Your task to perform on an android device: turn off location history Image 0: 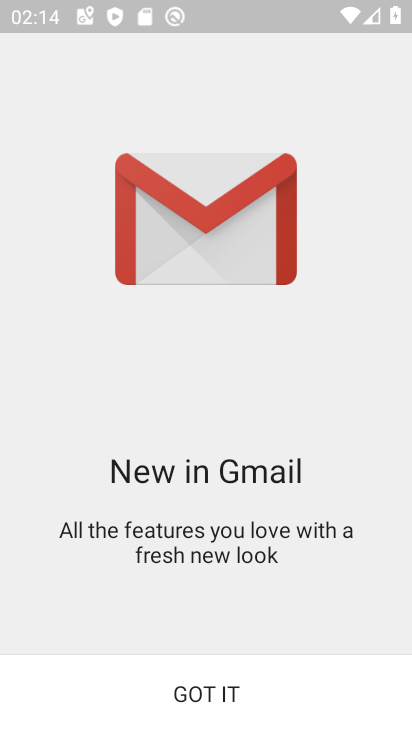
Step 0: press home button
Your task to perform on an android device: turn off location history Image 1: 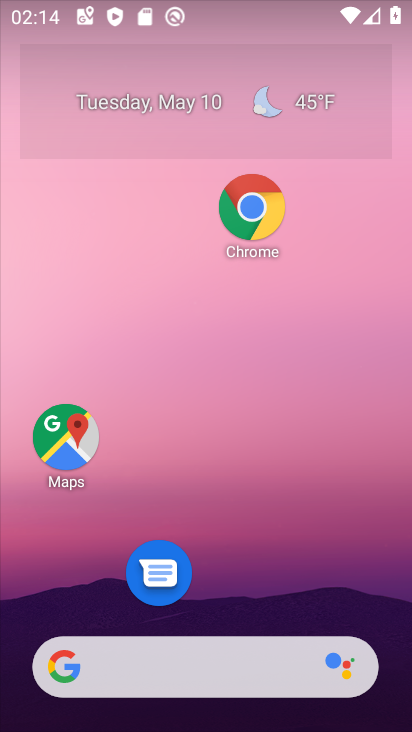
Step 1: drag from (287, 625) to (308, 164)
Your task to perform on an android device: turn off location history Image 2: 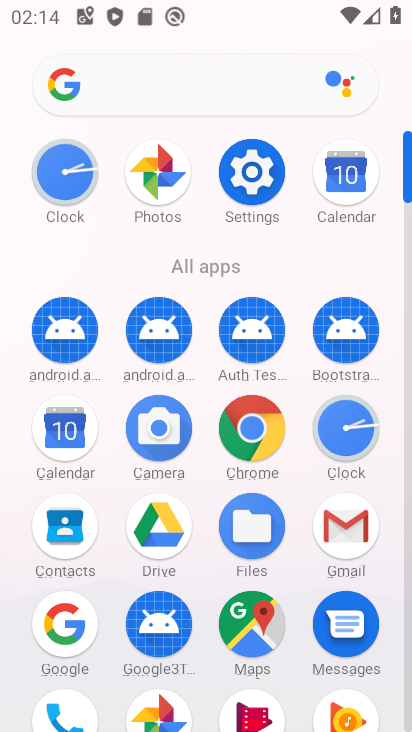
Step 2: click (259, 202)
Your task to perform on an android device: turn off location history Image 3: 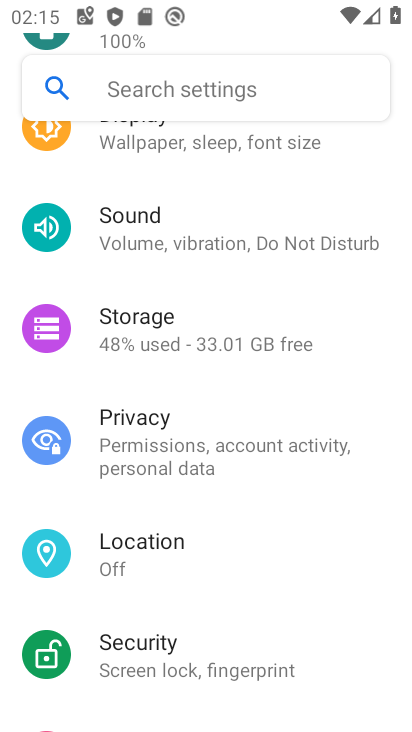
Step 3: click (169, 547)
Your task to perform on an android device: turn off location history Image 4: 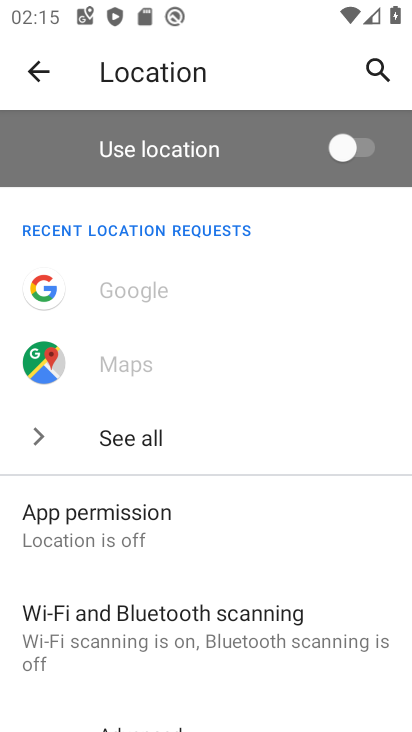
Step 4: drag from (165, 583) to (205, 306)
Your task to perform on an android device: turn off location history Image 5: 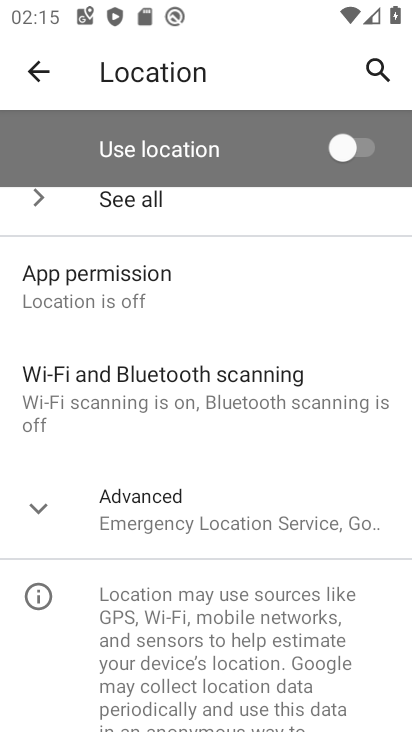
Step 5: click (190, 527)
Your task to perform on an android device: turn off location history Image 6: 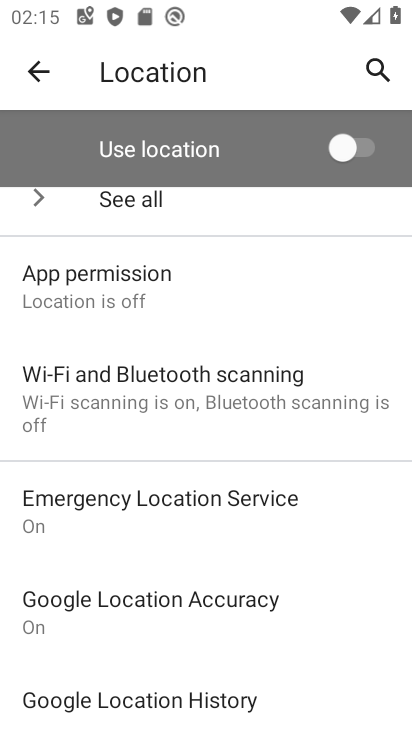
Step 6: drag from (190, 636) to (264, 408)
Your task to perform on an android device: turn off location history Image 7: 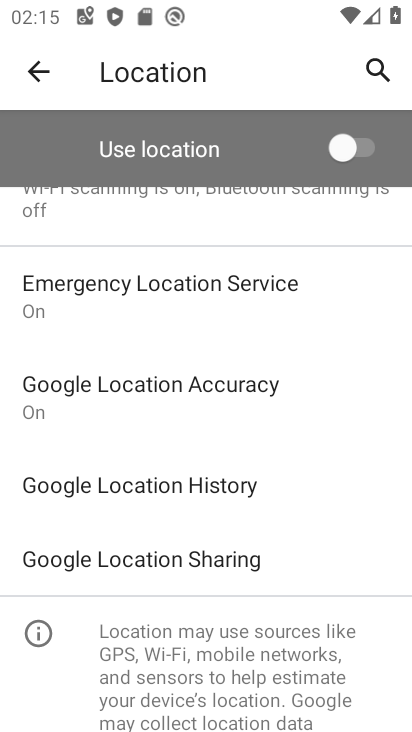
Step 7: click (220, 505)
Your task to perform on an android device: turn off location history Image 8: 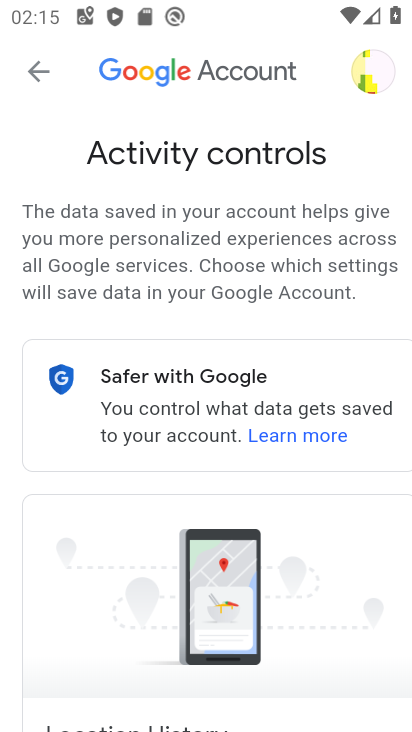
Step 8: drag from (164, 524) to (235, 129)
Your task to perform on an android device: turn off location history Image 9: 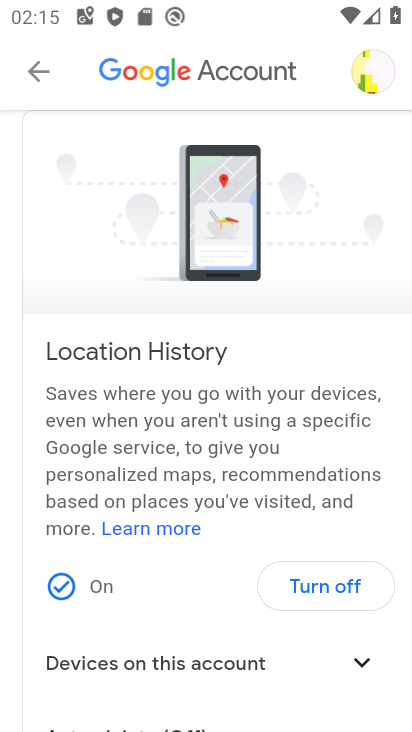
Step 9: click (320, 585)
Your task to perform on an android device: turn off location history Image 10: 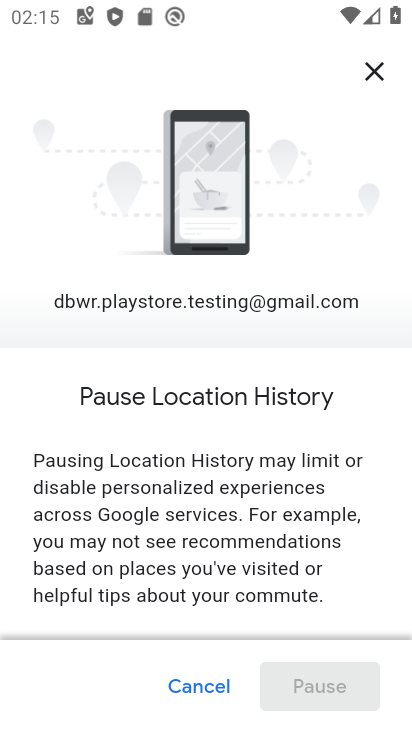
Step 10: drag from (249, 615) to (255, 328)
Your task to perform on an android device: turn off location history Image 11: 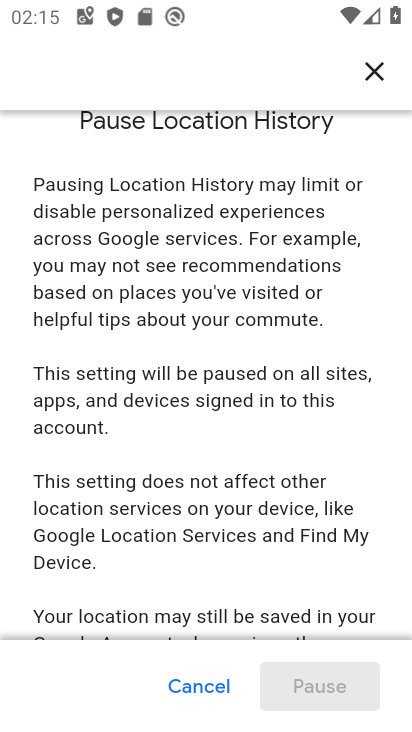
Step 11: drag from (208, 541) to (258, 69)
Your task to perform on an android device: turn off location history Image 12: 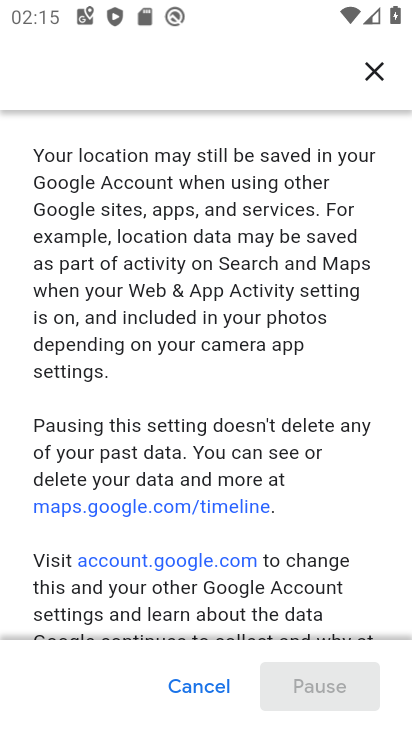
Step 12: drag from (266, 526) to (338, 45)
Your task to perform on an android device: turn off location history Image 13: 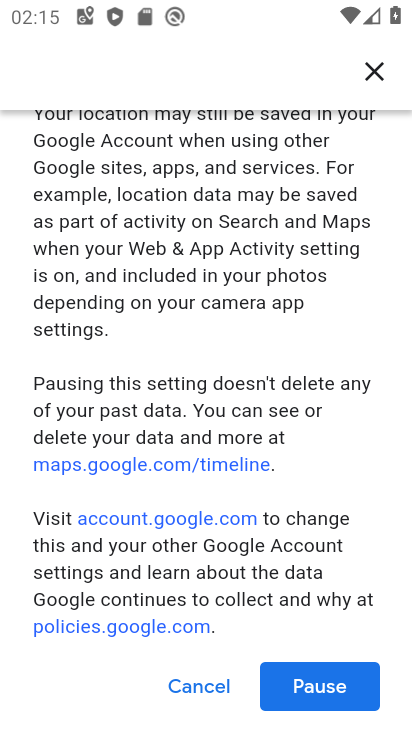
Step 13: click (337, 696)
Your task to perform on an android device: turn off location history Image 14: 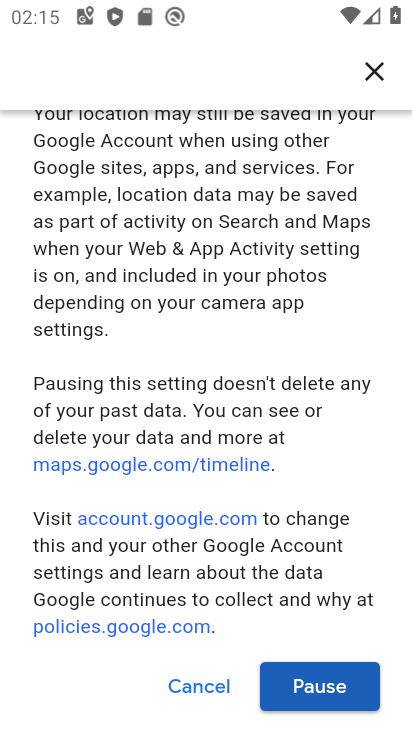
Step 14: click (334, 683)
Your task to perform on an android device: turn off location history Image 15: 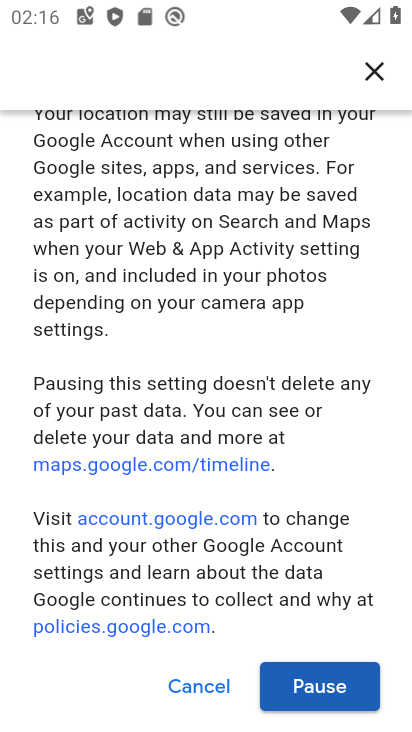
Step 15: click (334, 683)
Your task to perform on an android device: turn off location history Image 16: 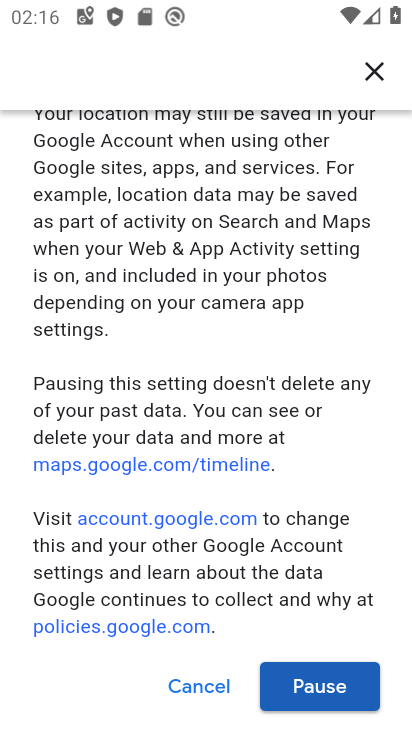
Step 16: click (336, 683)
Your task to perform on an android device: turn off location history Image 17: 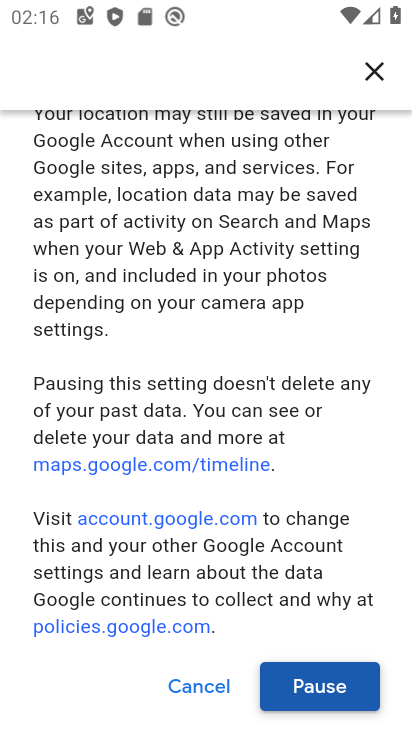
Step 17: drag from (303, 595) to (322, 344)
Your task to perform on an android device: turn off location history Image 18: 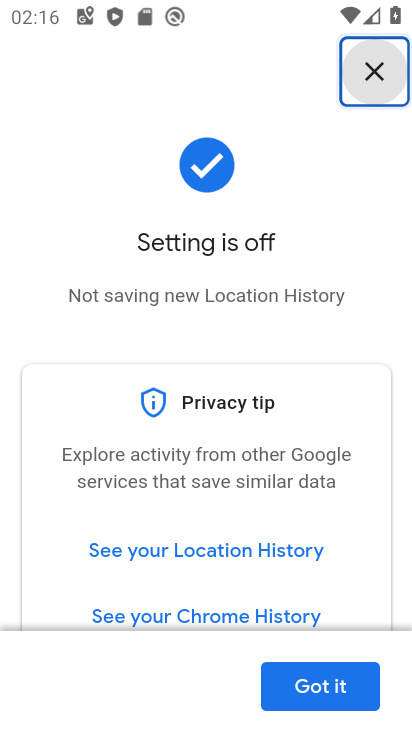
Step 18: click (323, 687)
Your task to perform on an android device: turn off location history Image 19: 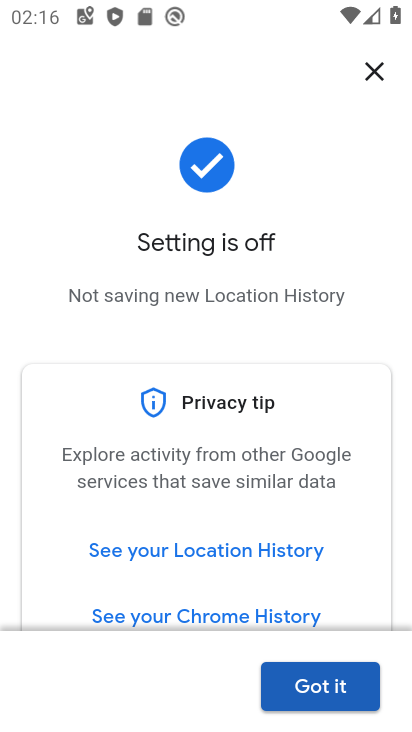
Step 19: click (322, 677)
Your task to perform on an android device: turn off location history Image 20: 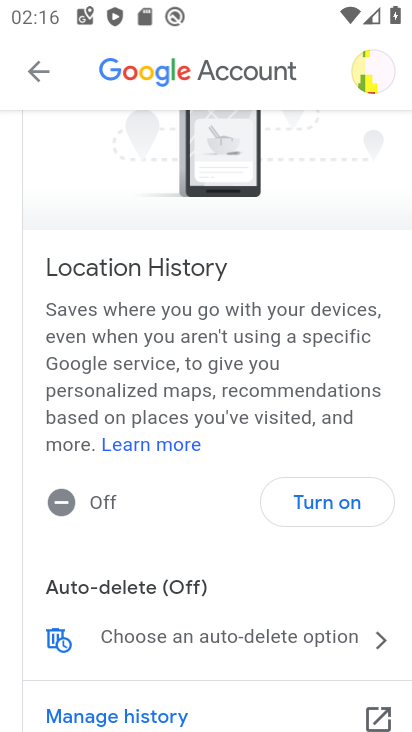
Step 20: task complete